Your task to perform on an android device: change the clock display to digital Image 0: 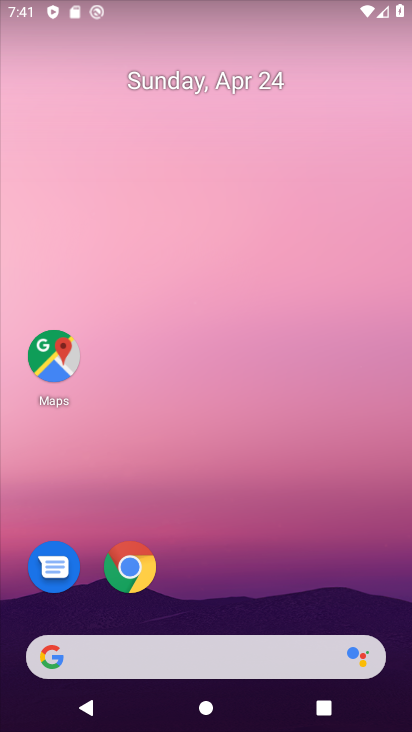
Step 0: drag from (209, 497) to (337, 51)
Your task to perform on an android device: change the clock display to digital Image 1: 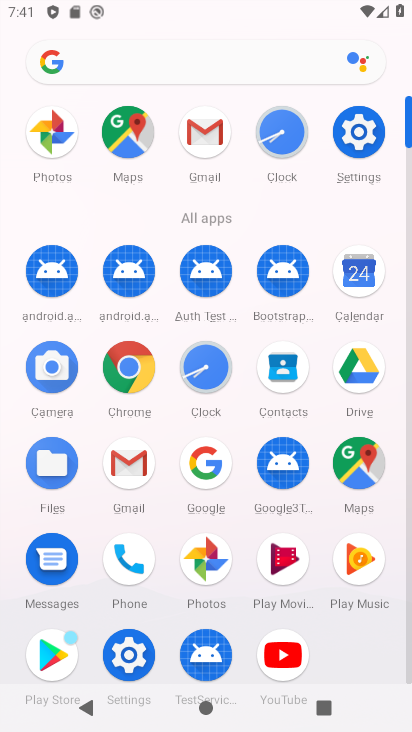
Step 1: click (214, 374)
Your task to perform on an android device: change the clock display to digital Image 2: 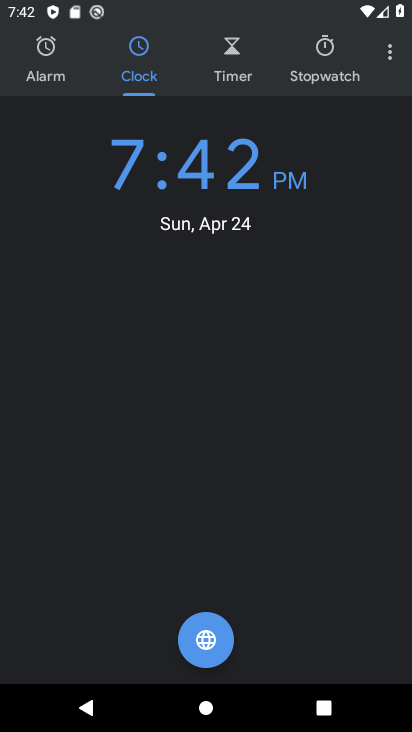
Step 2: click (386, 51)
Your task to perform on an android device: change the clock display to digital Image 3: 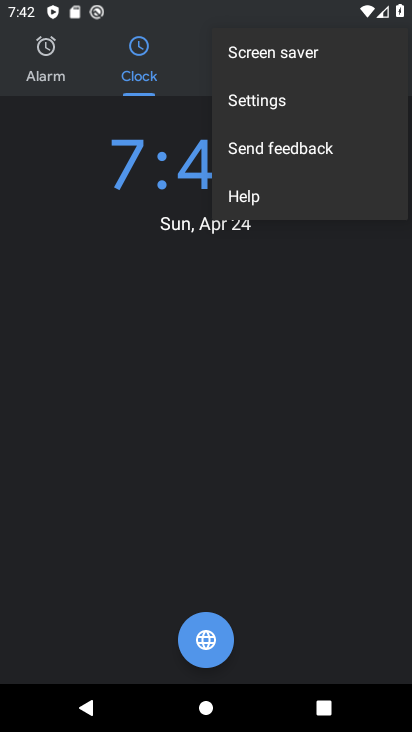
Step 3: click (353, 102)
Your task to perform on an android device: change the clock display to digital Image 4: 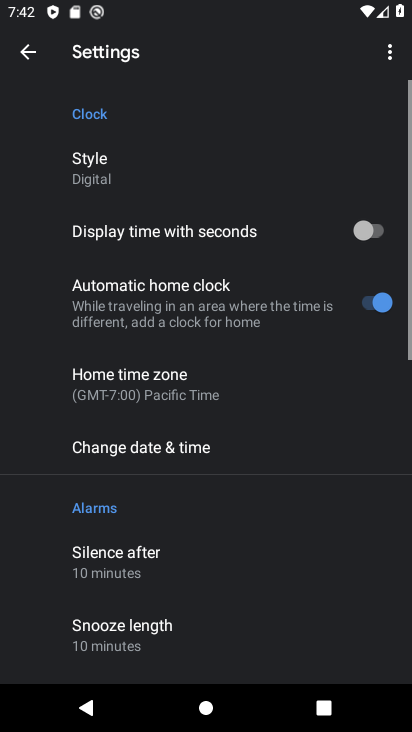
Step 4: click (277, 175)
Your task to perform on an android device: change the clock display to digital Image 5: 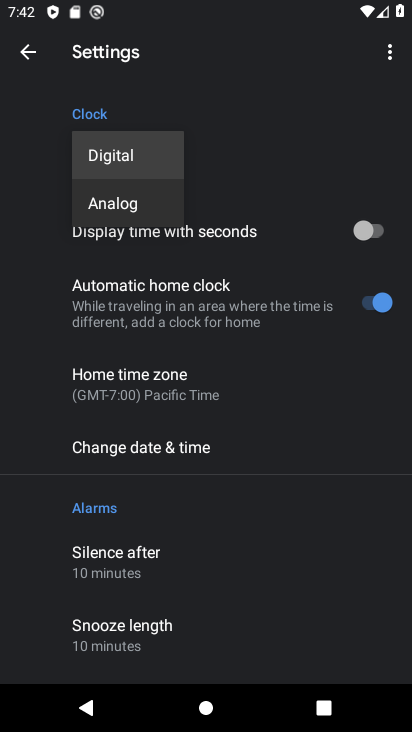
Step 5: task complete